Your task to perform on an android device: Open a new window in the chrome app Image 0: 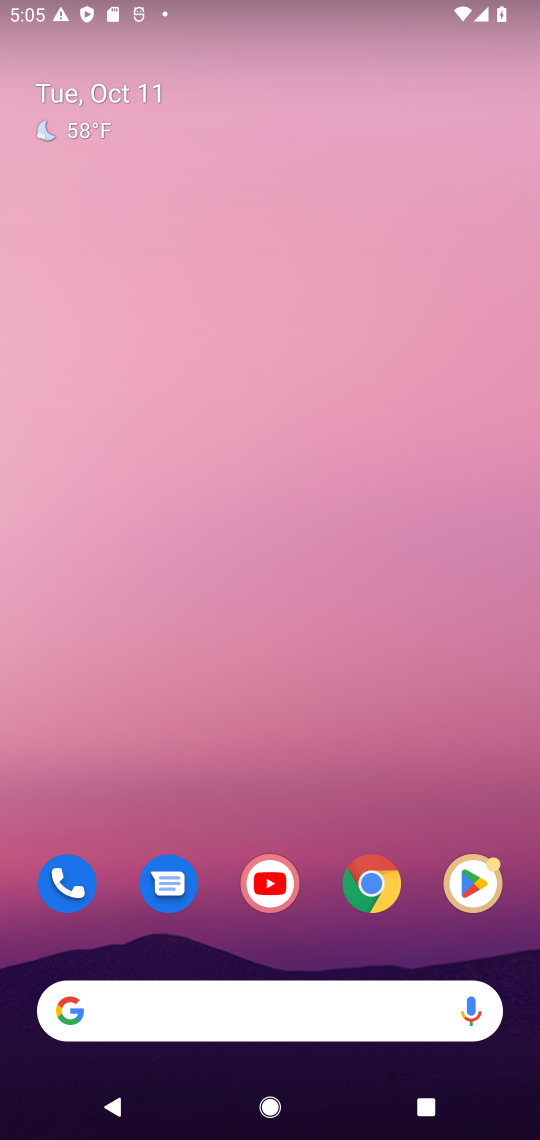
Step 0: drag from (281, 915) to (226, 111)
Your task to perform on an android device: Open a new window in the chrome app Image 1: 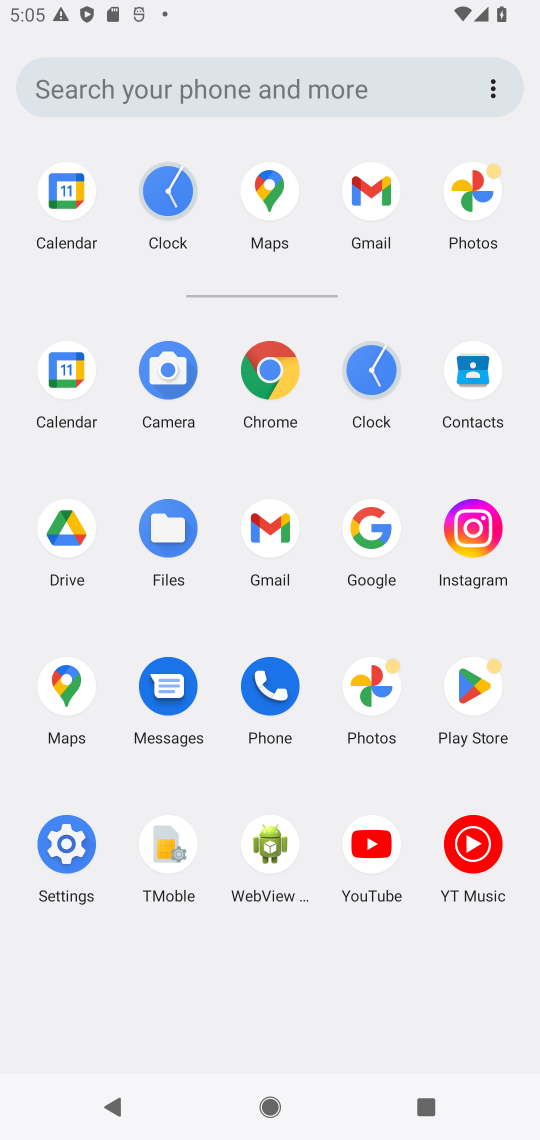
Step 1: click (266, 358)
Your task to perform on an android device: Open a new window in the chrome app Image 2: 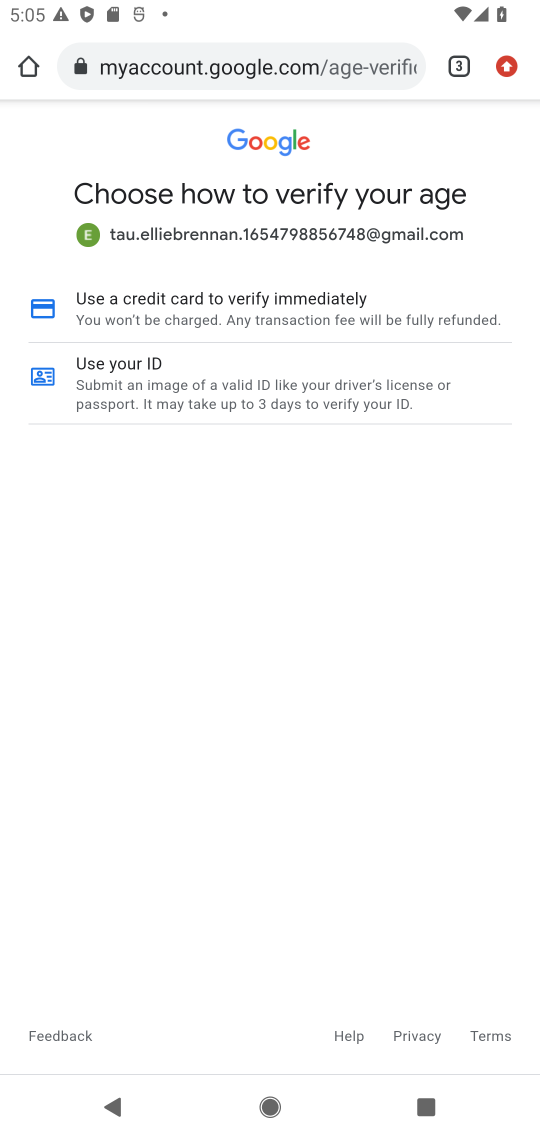
Step 2: click (234, 56)
Your task to perform on an android device: Open a new window in the chrome app Image 3: 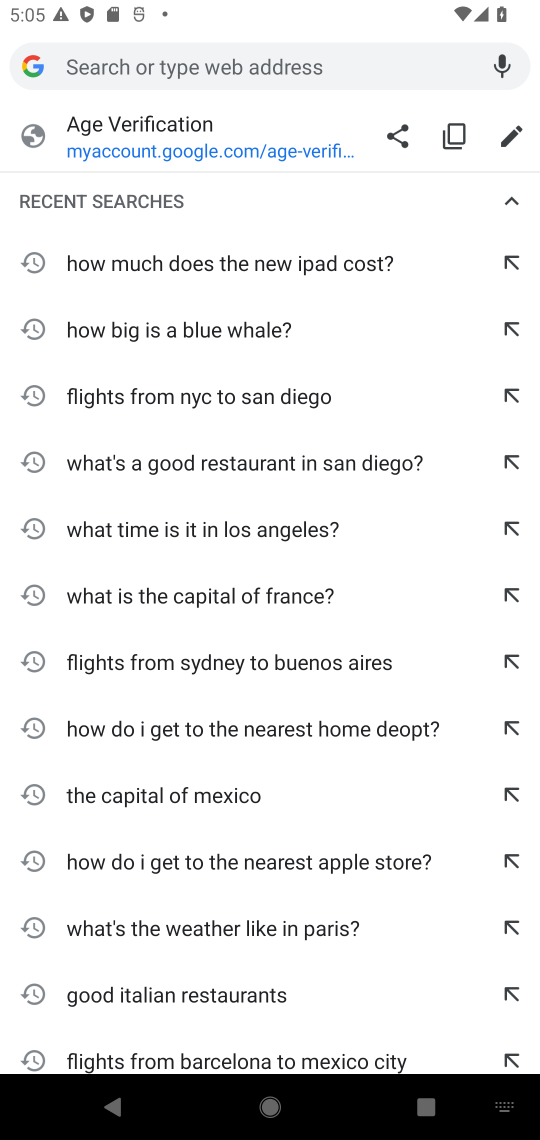
Step 3: click (158, 55)
Your task to perform on an android device: Open a new window in the chrome app Image 4: 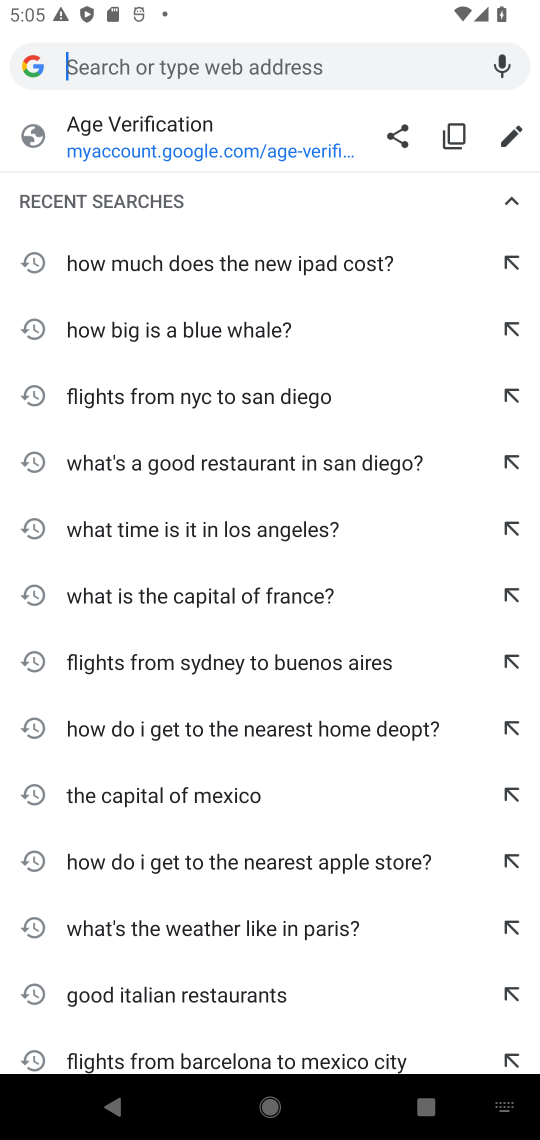
Step 4: click (354, 60)
Your task to perform on an android device: Open a new window in the chrome app Image 5: 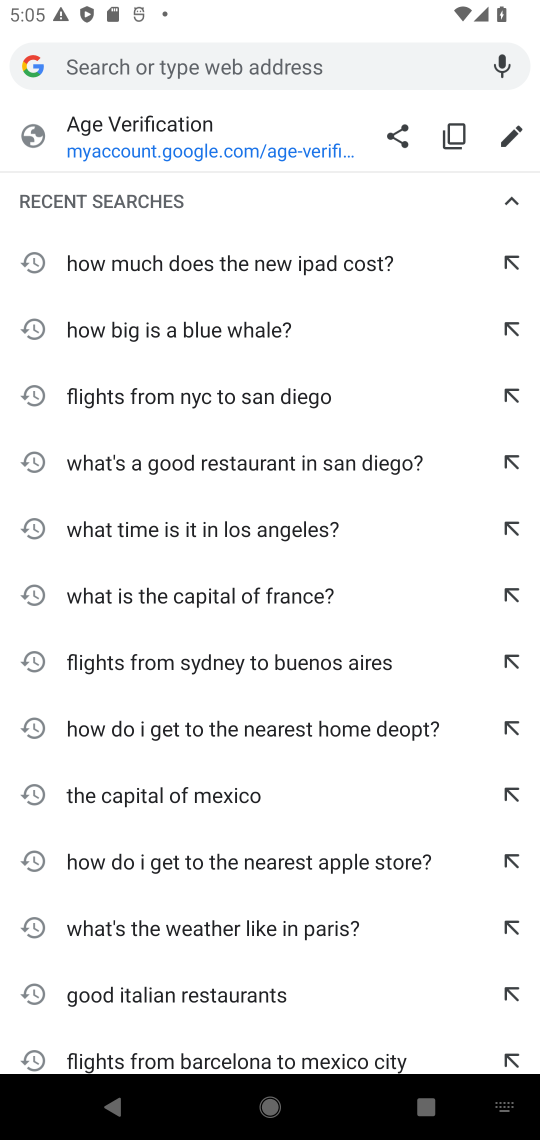
Step 5: task complete